Your task to perform on an android device: Search for sushi restaurants on Maps Image 0: 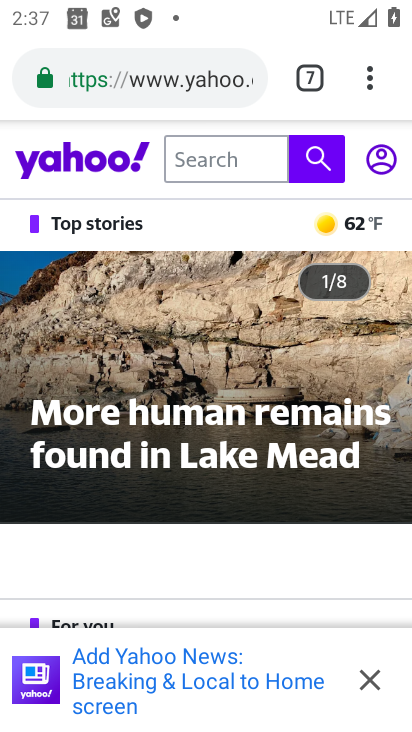
Step 0: press home button
Your task to perform on an android device: Search for sushi restaurants on Maps Image 1: 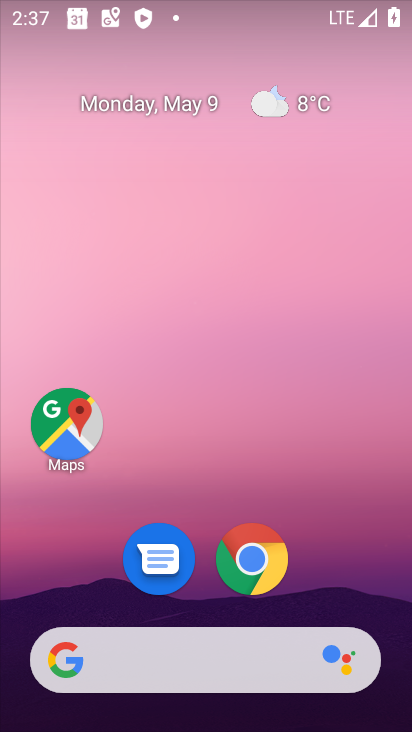
Step 1: click (66, 425)
Your task to perform on an android device: Search for sushi restaurants on Maps Image 2: 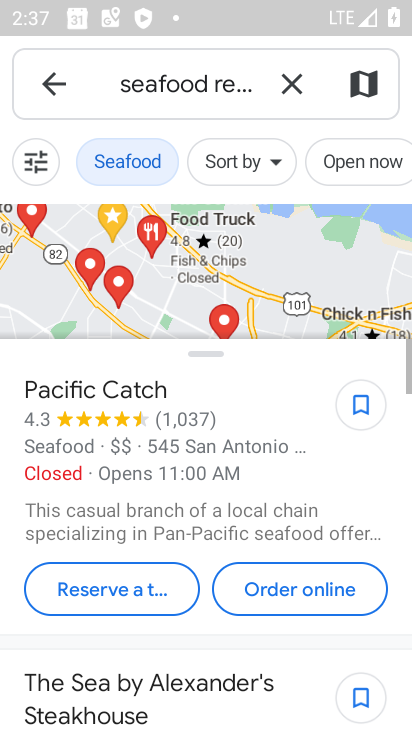
Step 2: click (290, 81)
Your task to perform on an android device: Search for sushi restaurants on Maps Image 3: 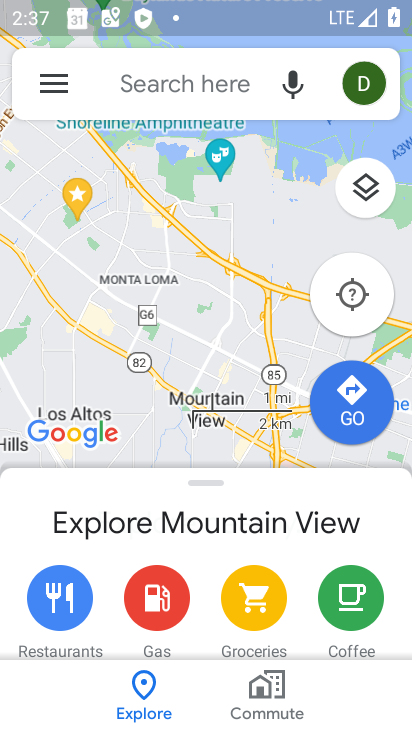
Step 3: click (202, 81)
Your task to perform on an android device: Search for sushi restaurants on Maps Image 4: 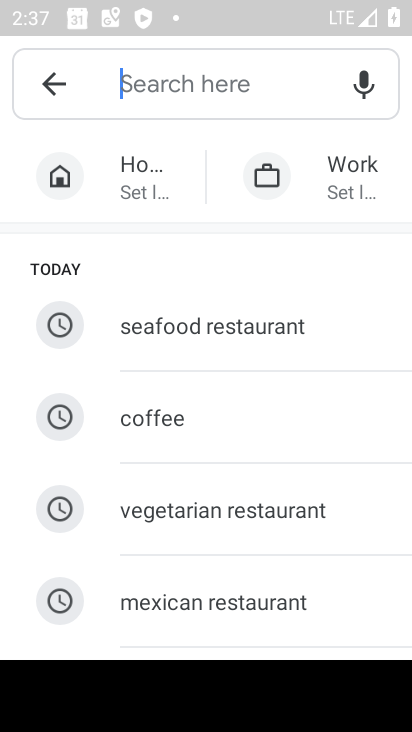
Step 4: type "sushi"
Your task to perform on an android device: Search for sushi restaurants on Maps Image 5: 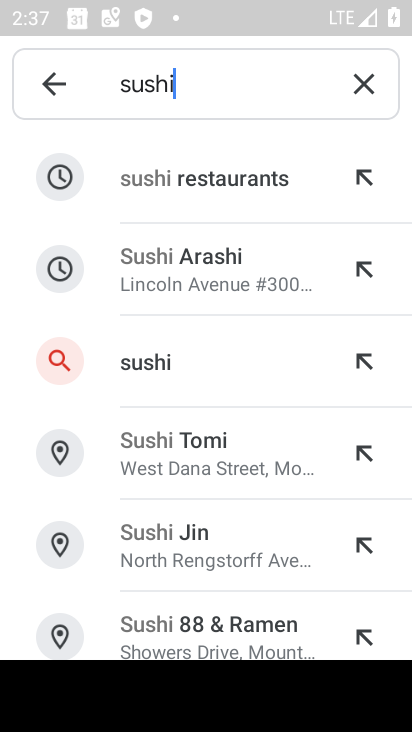
Step 5: click (200, 176)
Your task to perform on an android device: Search for sushi restaurants on Maps Image 6: 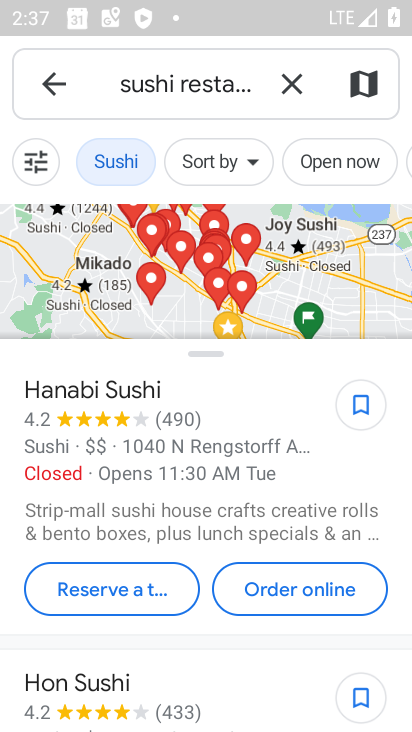
Step 6: task complete